Your task to perform on an android device: Go to battery settings Image 0: 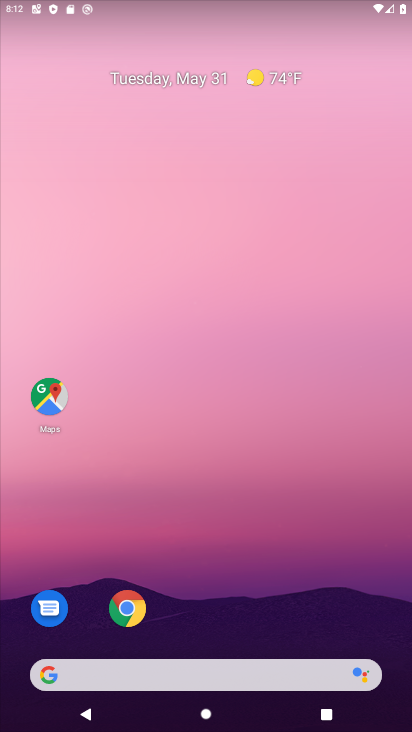
Step 0: drag from (201, 634) to (139, 83)
Your task to perform on an android device: Go to battery settings Image 1: 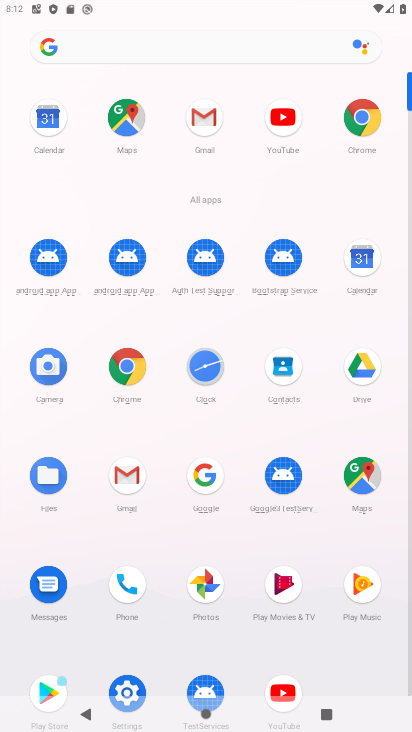
Step 1: click (123, 681)
Your task to perform on an android device: Go to battery settings Image 2: 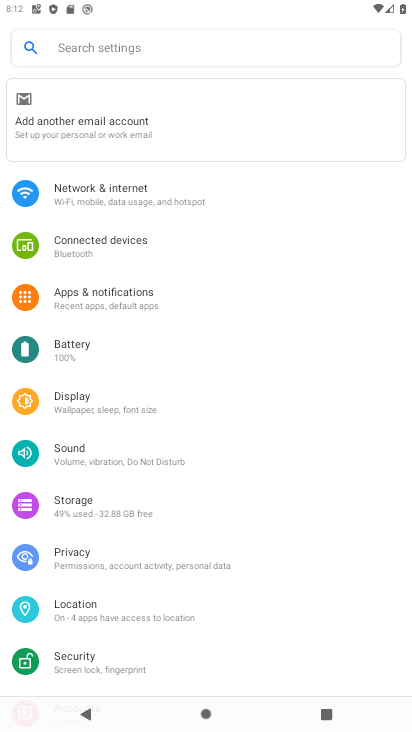
Step 2: click (88, 338)
Your task to perform on an android device: Go to battery settings Image 3: 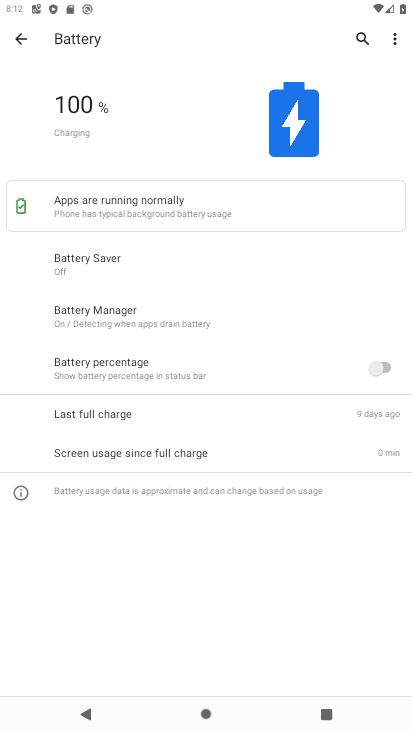
Step 3: task complete